Your task to perform on an android device: Show me productivity apps on the Play Store Image 0: 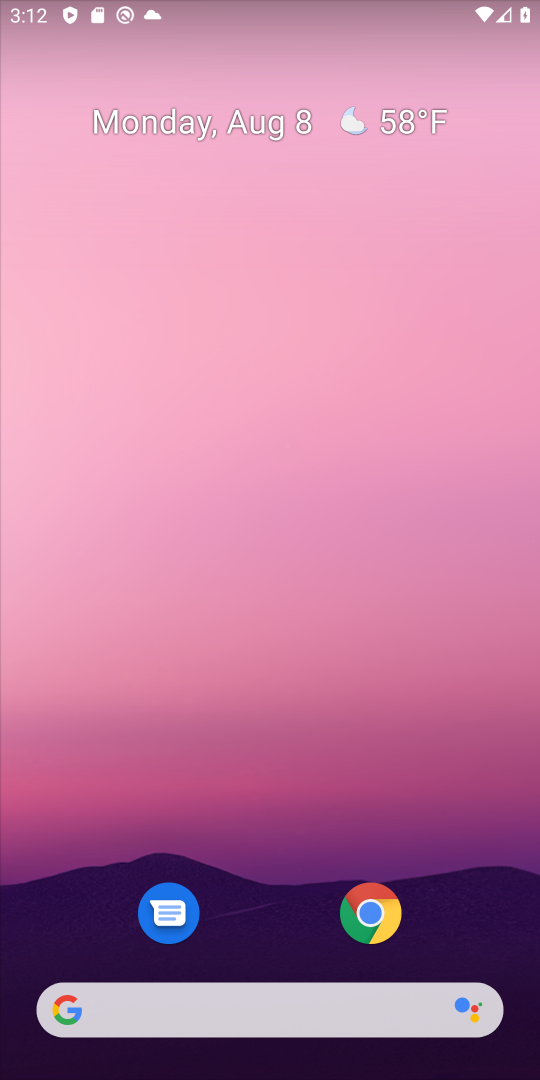
Step 0: drag from (466, 896) to (495, 165)
Your task to perform on an android device: Show me productivity apps on the Play Store Image 1: 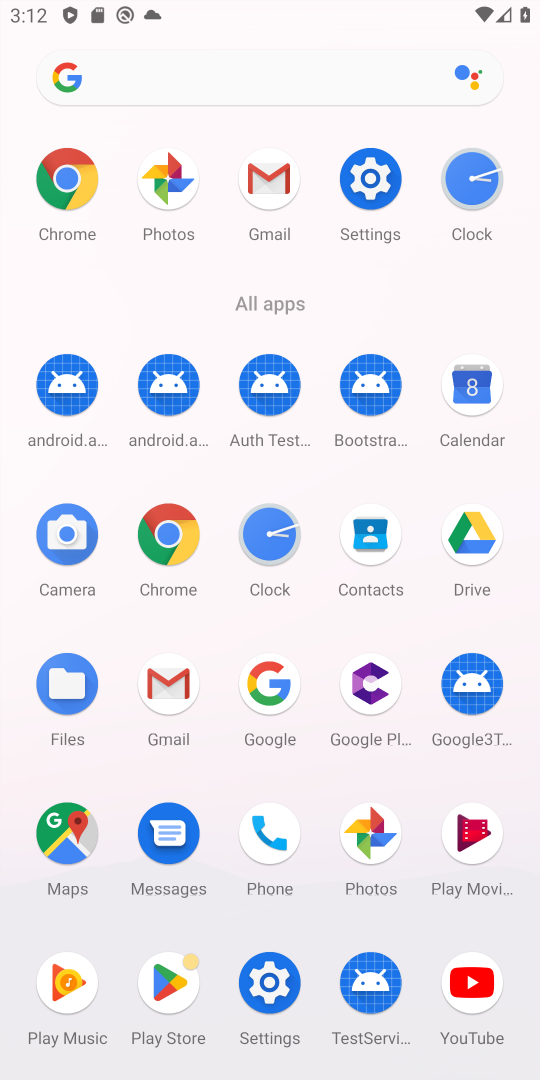
Step 1: click (167, 986)
Your task to perform on an android device: Show me productivity apps on the Play Store Image 2: 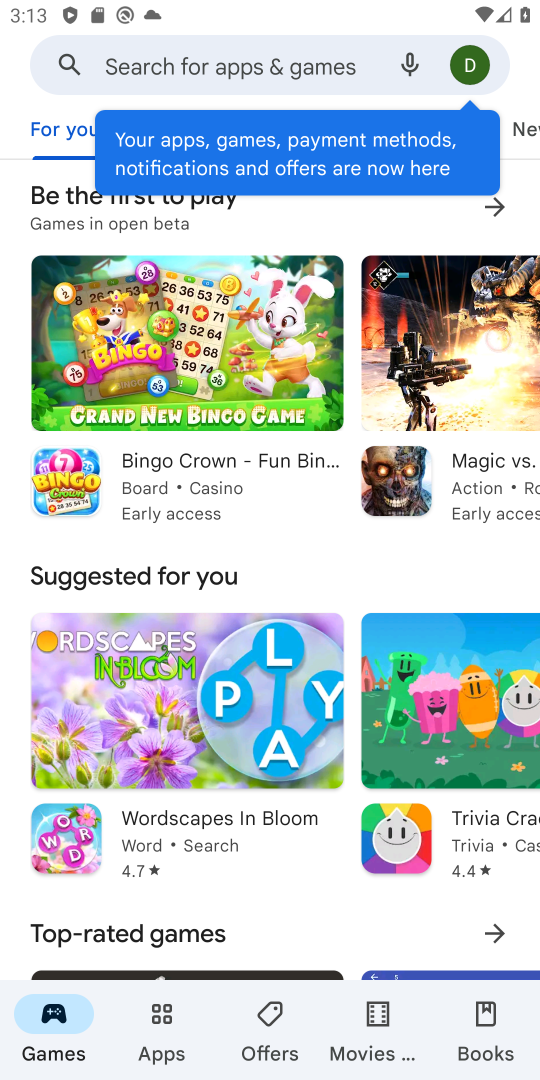
Step 2: click (161, 1017)
Your task to perform on an android device: Show me productivity apps on the Play Store Image 3: 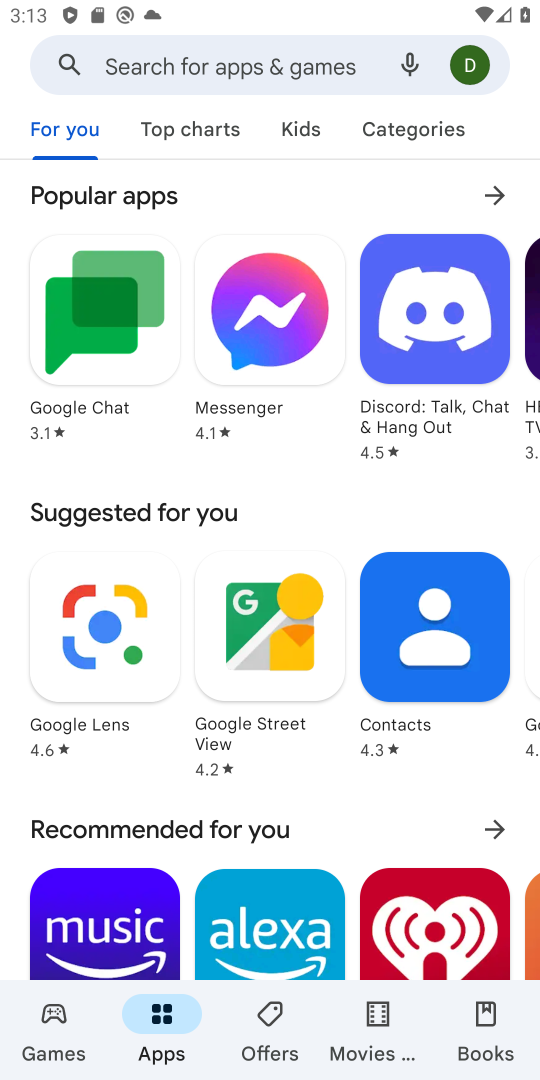
Step 3: task complete